Your task to perform on an android device: Open location settings Image 0: 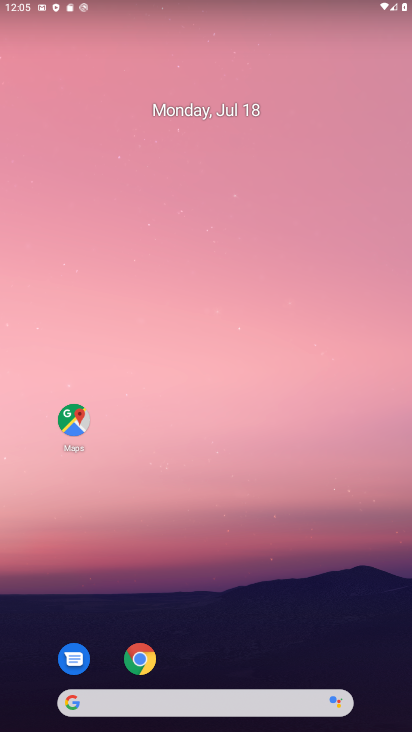
Step 0: drag from (166, 496) to (191, 6)
Your task to perform on an android device: Open location settings Image 1: 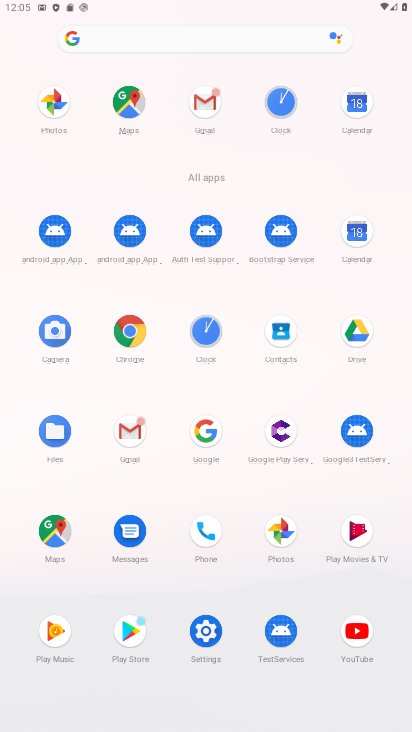
Step 1: click (202, 633)
Your task to perform on an android device: Open location settings Image 2: 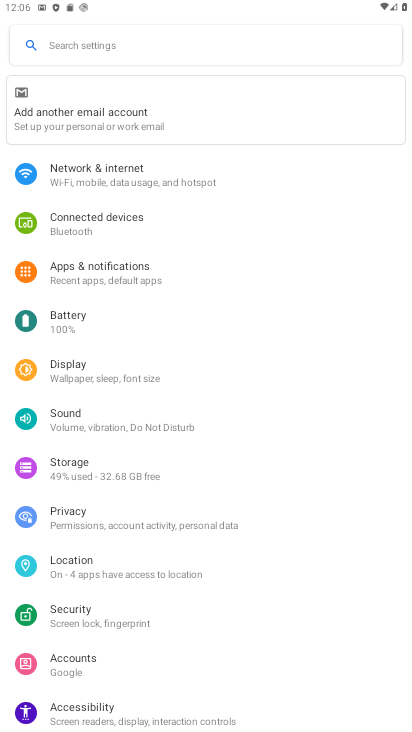
Step 2: click (102, 567)
Your task to perform on an android device: Open location settings Image 3: 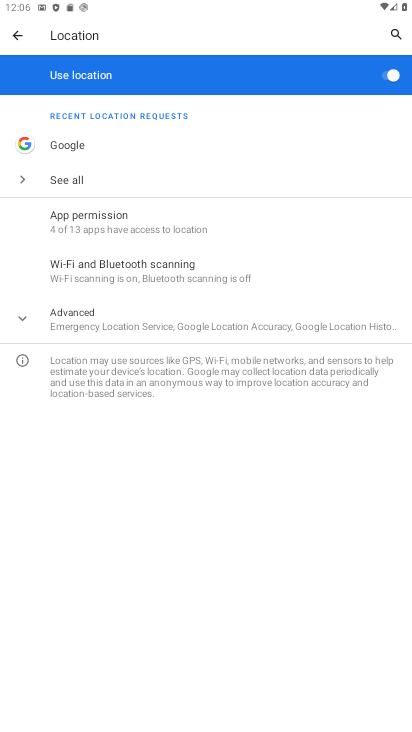
Step 3: task complete